Your task to perform on an android device: open app "Google Calendar" (install if not already installed) Image 0: 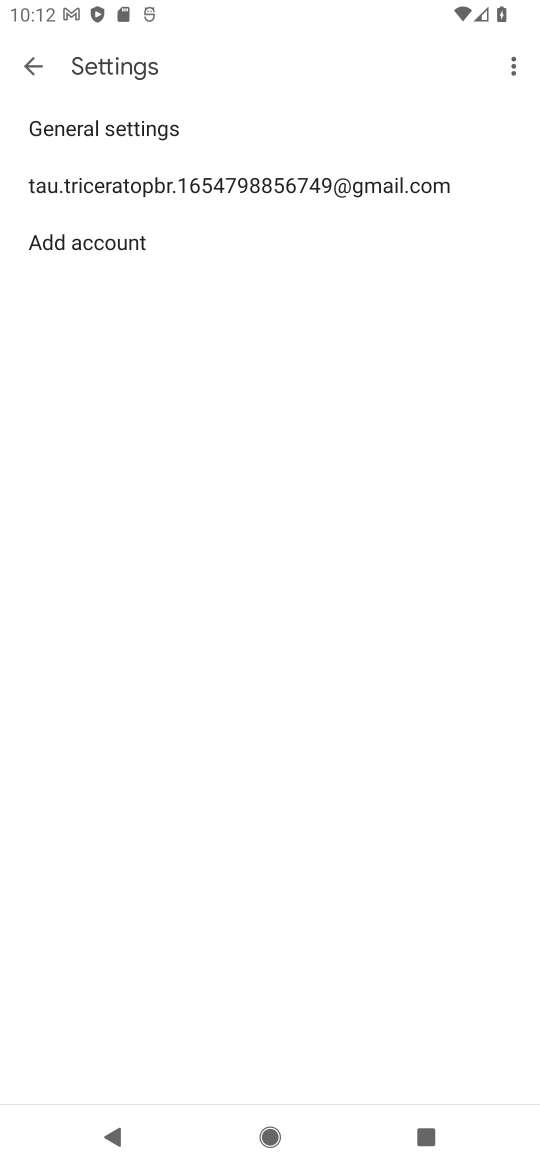
Step 0: press home button
Your task to perform on an android device: open app "Google Calendar" (install if not already installed) Image 1: 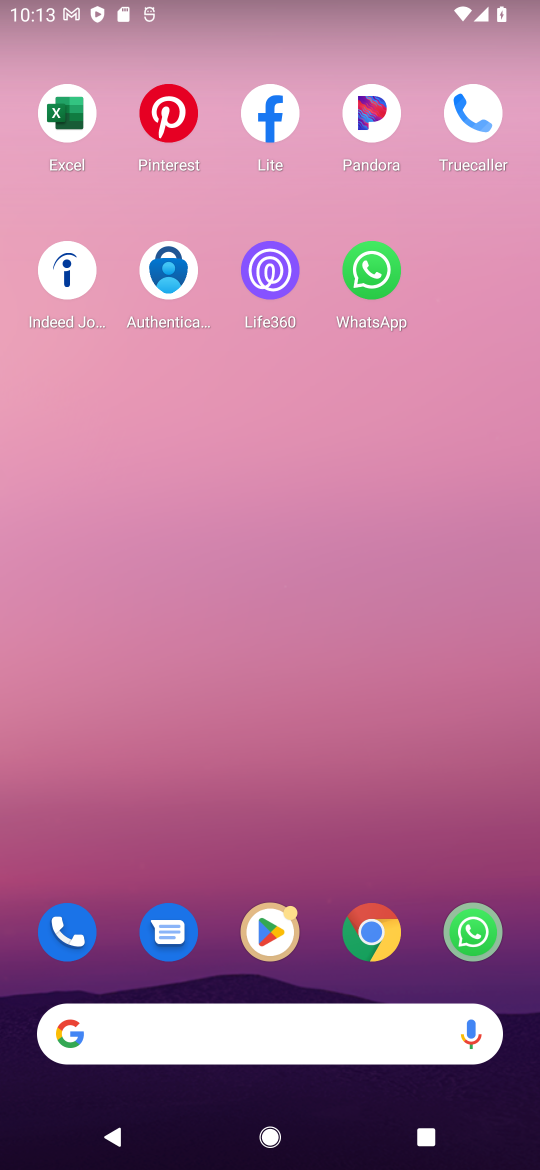
Step 1: click (276, 947)
Your task to perform on an android device: open app "Google Calendar" (install if not already installed) Image 2: 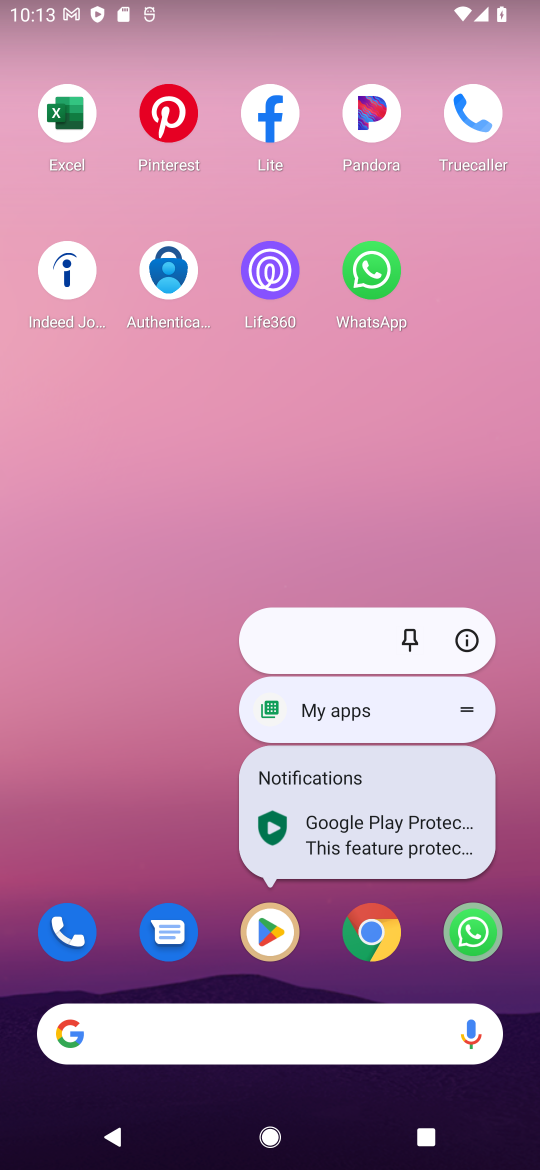
Step 2: click (287, 955)
Your task to perform on an android device: open app "Google Calendar" (install if not already installed) Image 3: 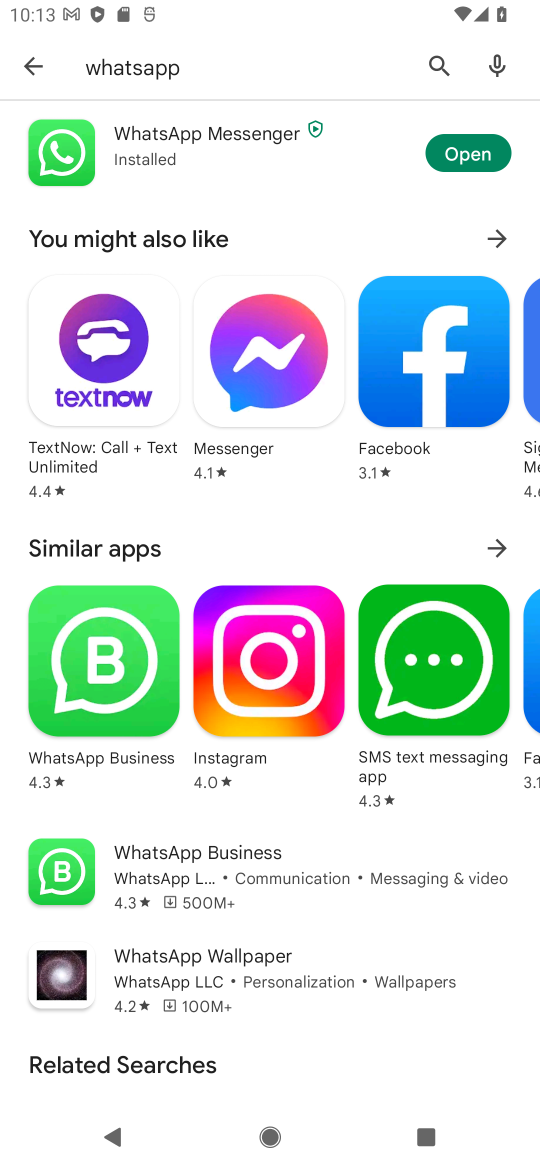
Step 3: click (456, 53)
Your task to perform on an android device: open app "Google Calendar" (install if not already installed) Image 4: 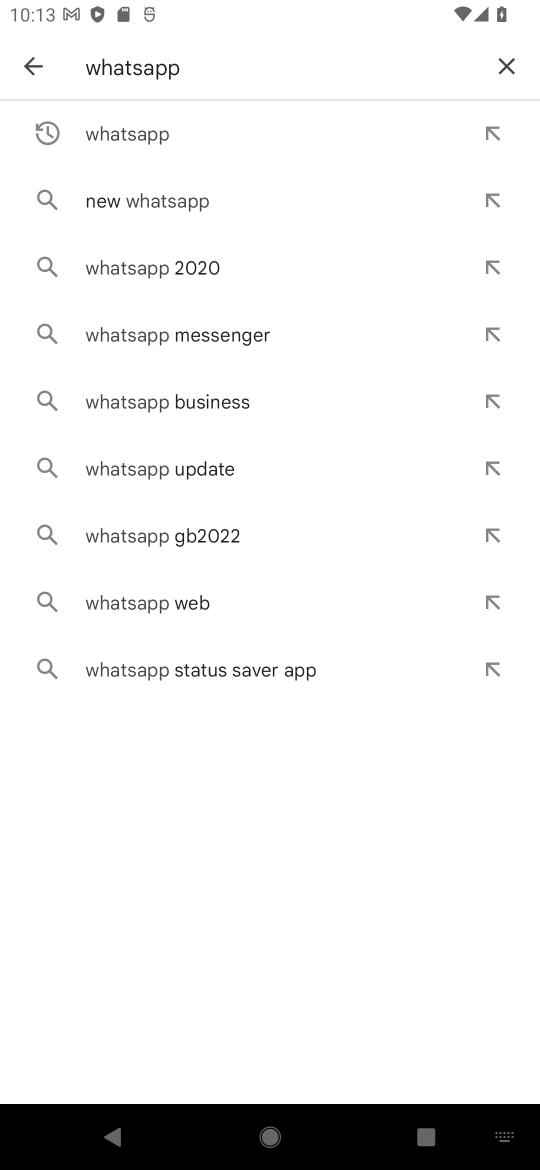
Step 4: click (487, 56)
Your task to perform on an android device: open app "Google Calendar" (install if not already installed) Image 5: 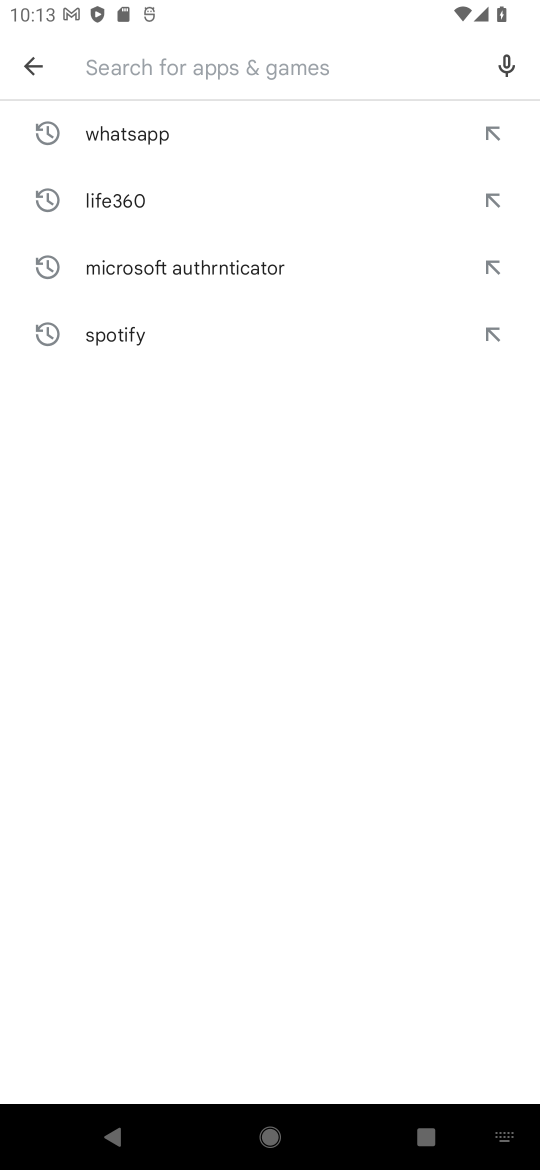
Step 5: type "google calender"
Your task to perform on an android device: open app "Google Calendar" (install if not already installed) Image 6: 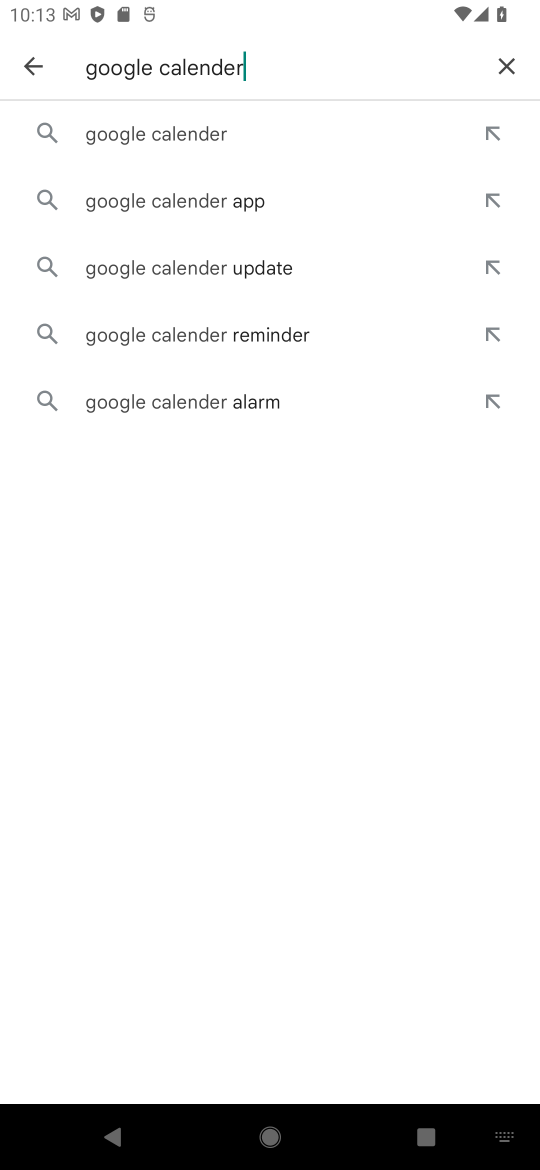
Step 6: click (272, 129)
Your task to perform on an android device: open app "Google Calendar" (install if not already installed) Image 7: 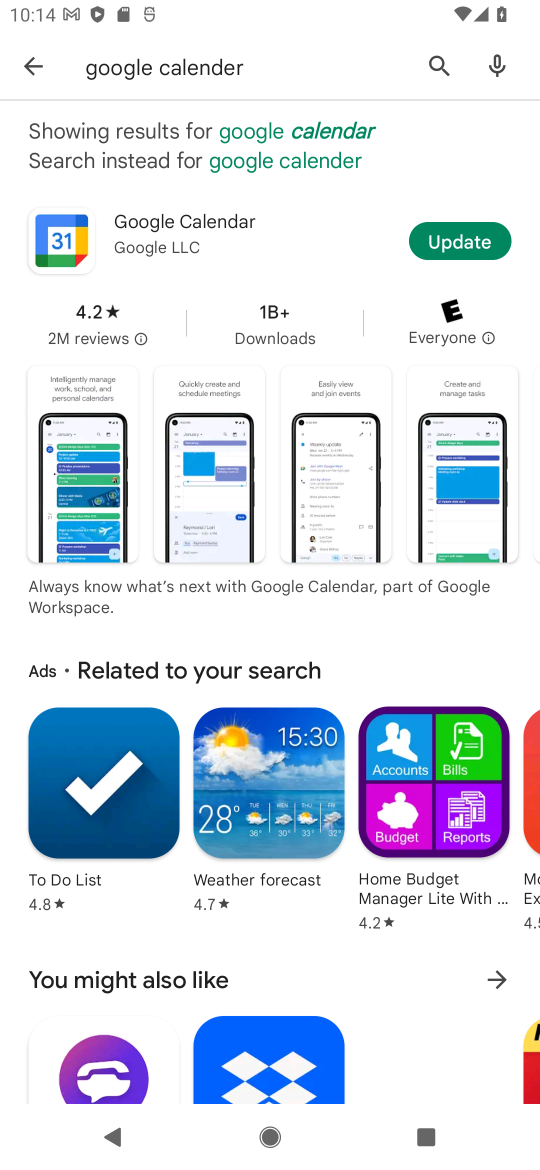
Step 7: click (246, 246)
Your task to perform on an android device: open app "Google Calendar" (install if not already installed) Image 8: 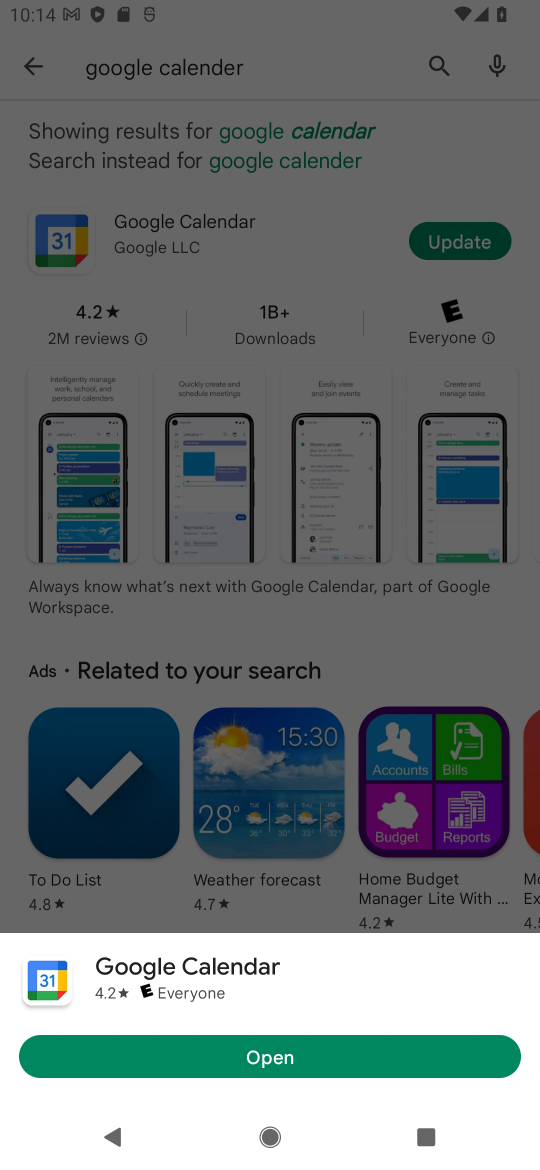
Step 8: click (358, 1043)
Your task to perform on an android device: open app "Google Calendar" (install if not already installed) Image 9: 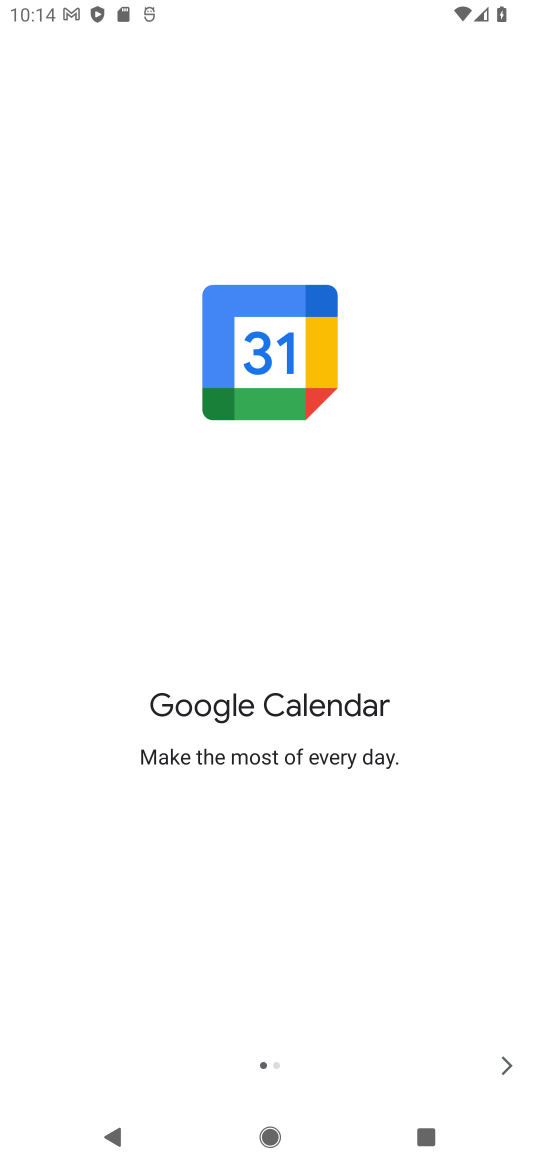
Step 9: task complete